Your task to perform on an android device: Open the web browser Image 0: 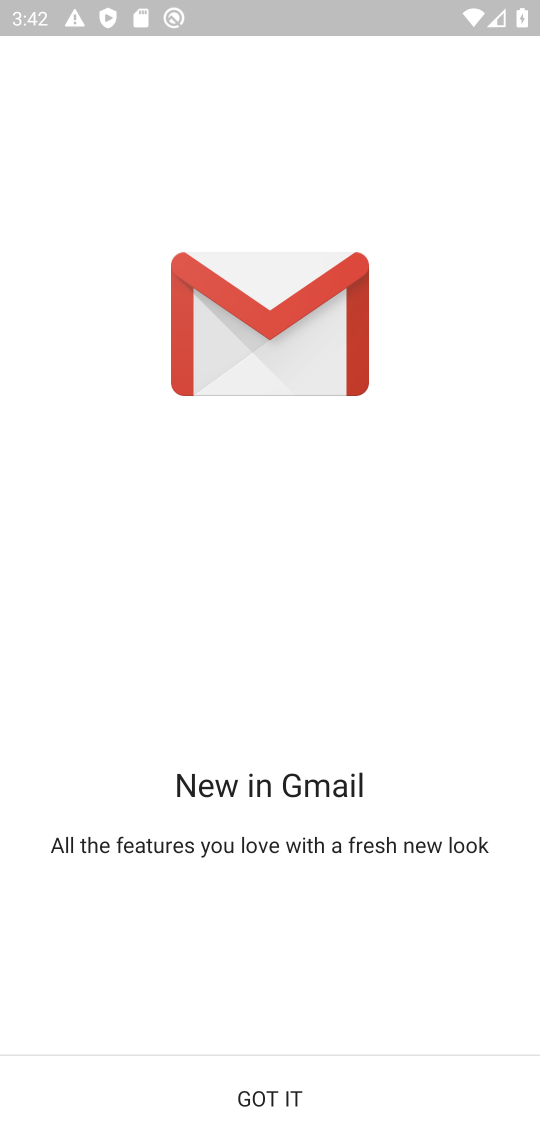
Step 0: press home button
Your task to perform on an android device: Open the web browser Image 1: 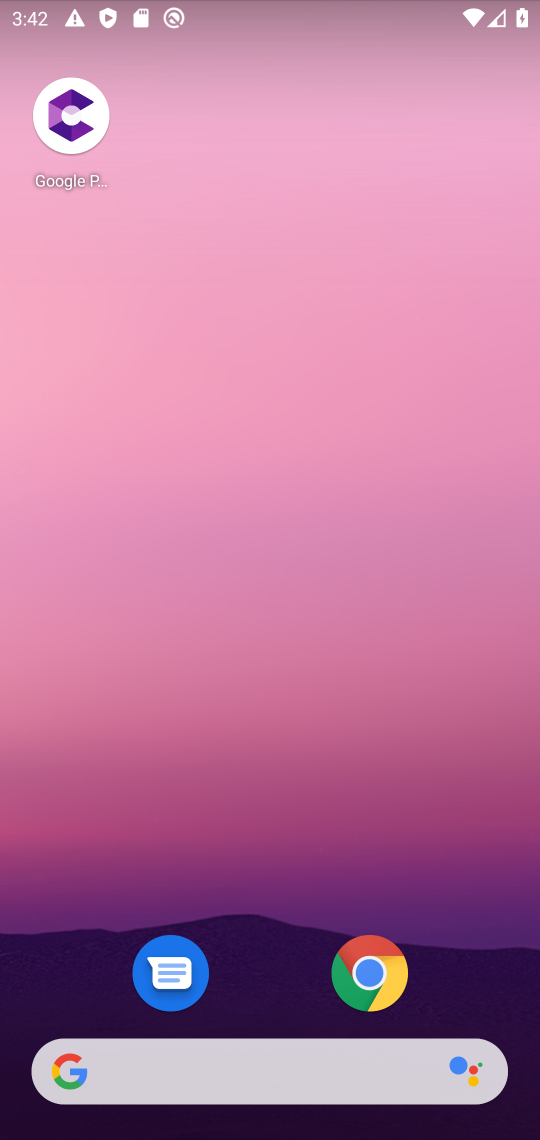
Step 1: click (271, 1081)
Your task to perform on an android device: Open the web browser Image 2: 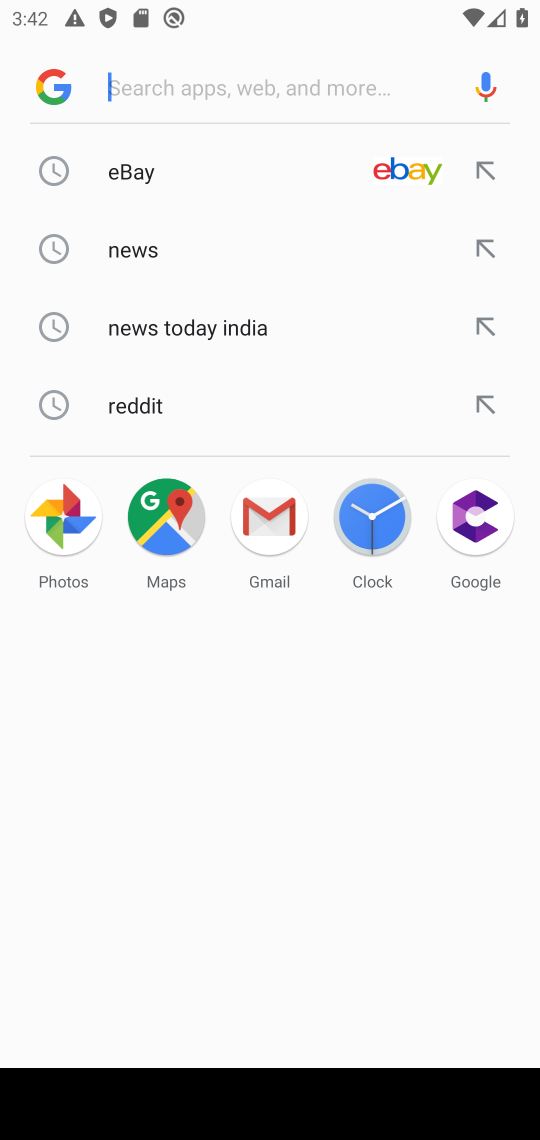
Step 2: task complete